Your task to perform on an android device: empty trash in google photos Image 0: 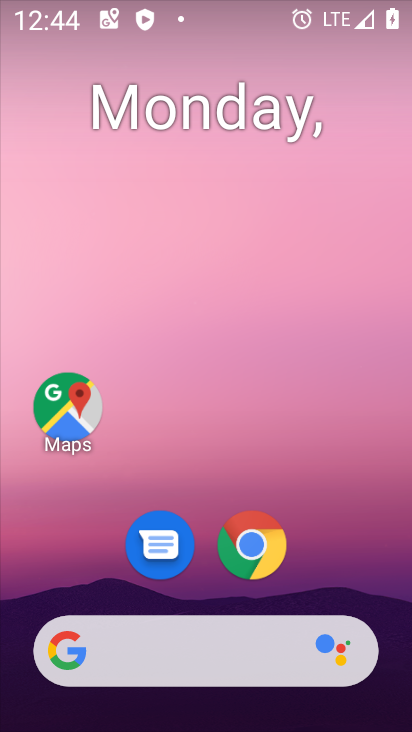
Step 0: drag from (381, 598) to (375, 264)
Your task to perform on an android device: empty trash in google photos Image 1: 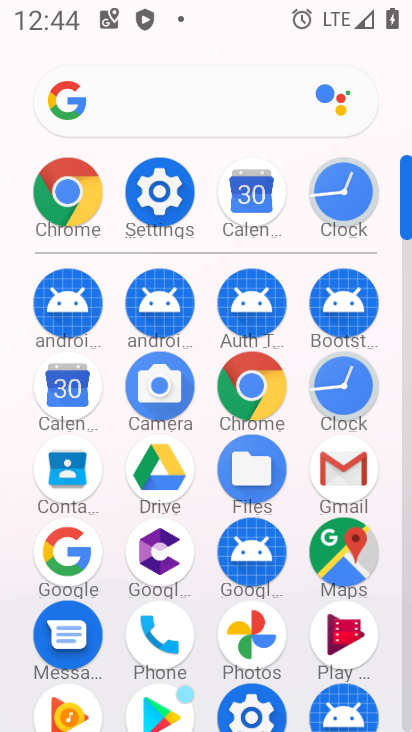
Step 1: click (276, 632)
Your task to perform on an android device: empty trash in google photos Image 2: 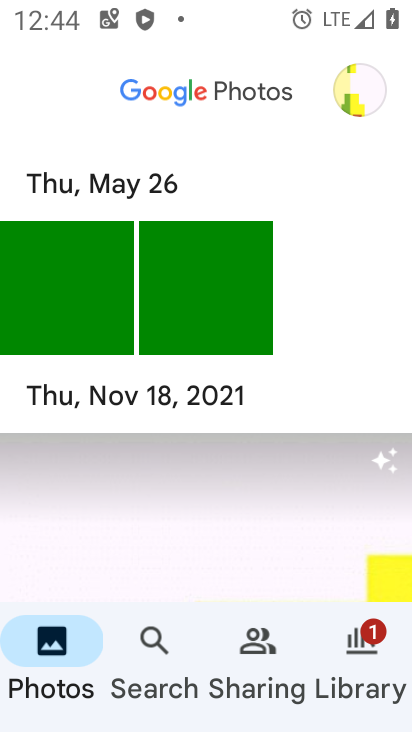
Step 2: click (368, 667)
Your task to perform on an android device: empty trash in google photos Image 3: 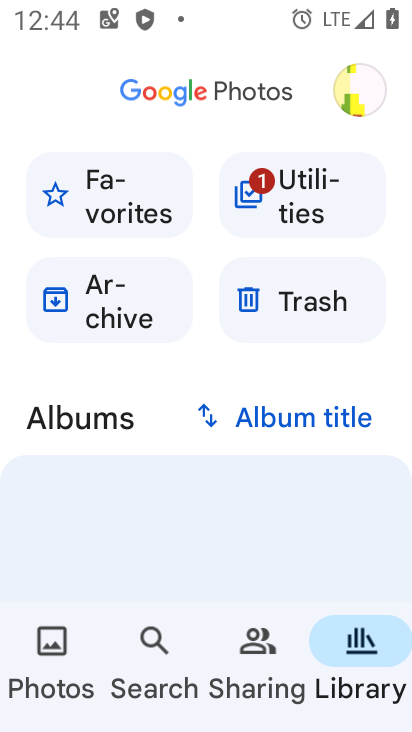
Step 3: click (315, 300)
Your task to perform on an android device: empty trash in google photos Image 4: 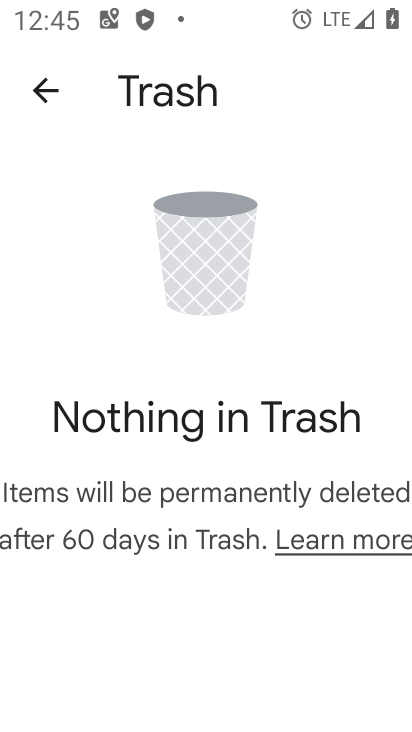
Step 4: task complete